Your task to perform on an android device: Search for Italian restaurants on Maps Image 0: 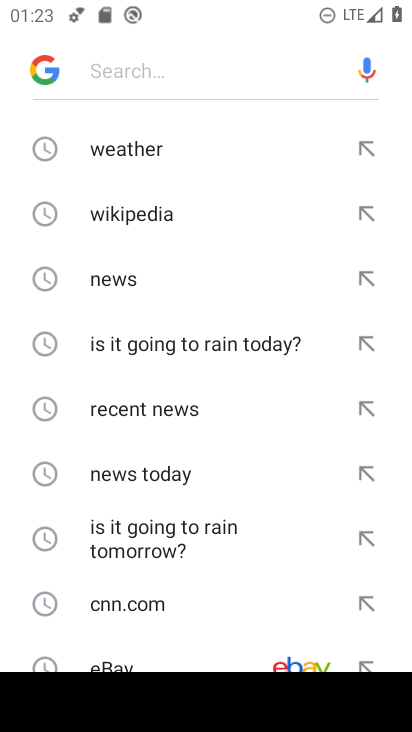
Step 0: press home button
Your task to perform on an android device: Search for Italian restaurants on Maps Image 1: 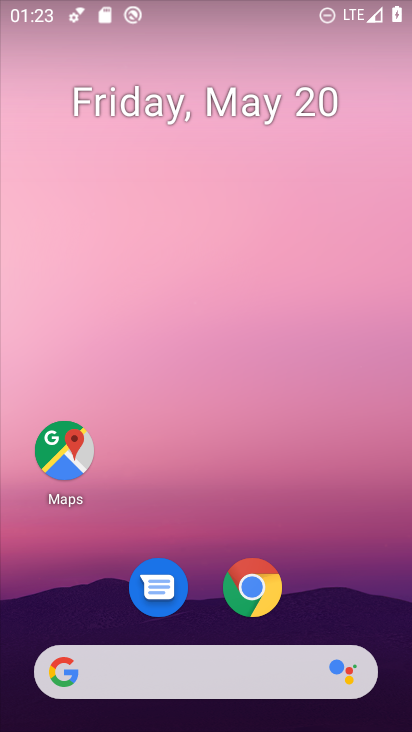
Step 1: drag from (360, 571) to (356, 247)
Your task to perform on an android device: Search for Italian restaurants on Maps Image 2: 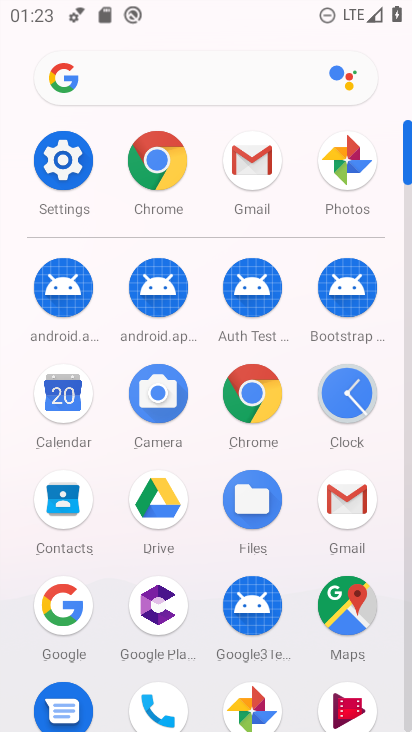
Step 2: click (352, 618)
Your task to perform on an android device: Search for Italian restaurants on Maps Image 3: 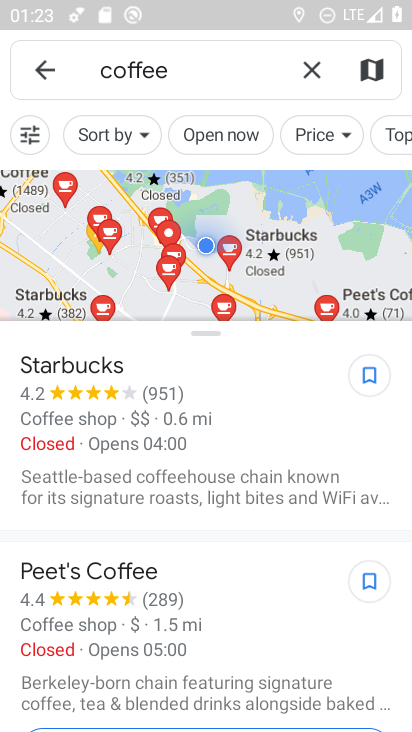
Step 3: click (321, 77)
Your task to perform on an android device: Search for Italian restaurants on Maps Image 4: 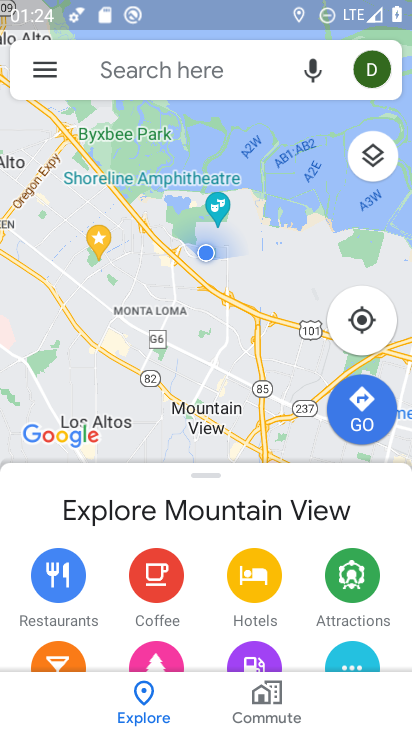
Step 4: click (229, 63)
Your task to perform on an android device: Search for Italian restaurants on Maps Image 5: 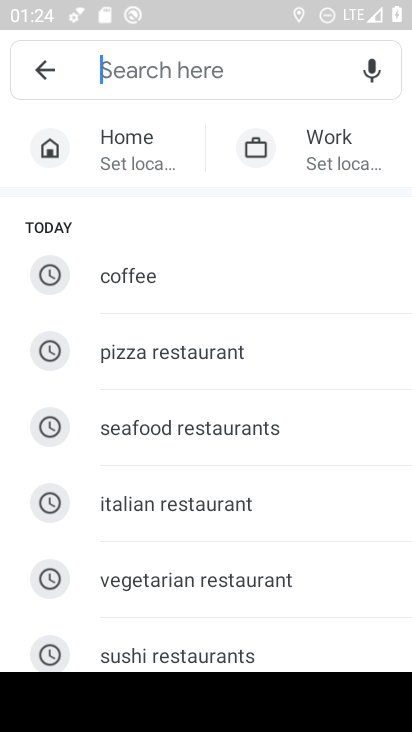
Step 5: type "italian restaurants"
Your task to perform on an android device: Search for Italian restaurants on Maps Image 6: 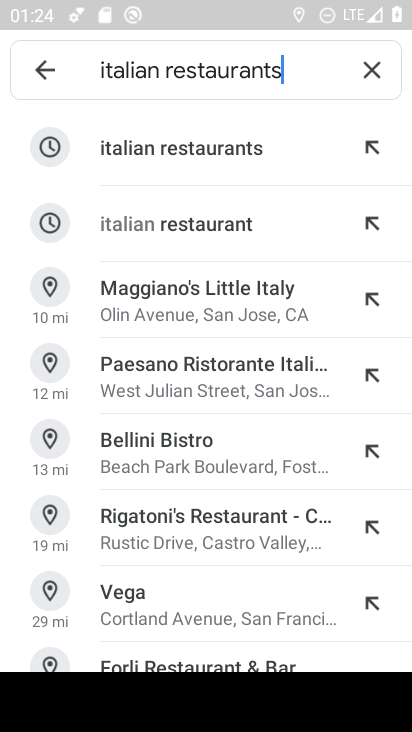
Step 6: click (242, 147)
Your task to perform on an android device: Search for Italian restaurants on Maps Image 7: 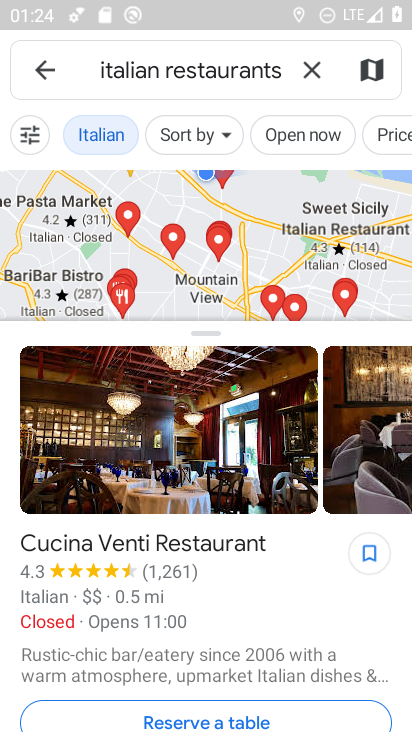
Step 7: task complete